Your task to perform on an android device: What's on my calendar tomorrow? Image 0: 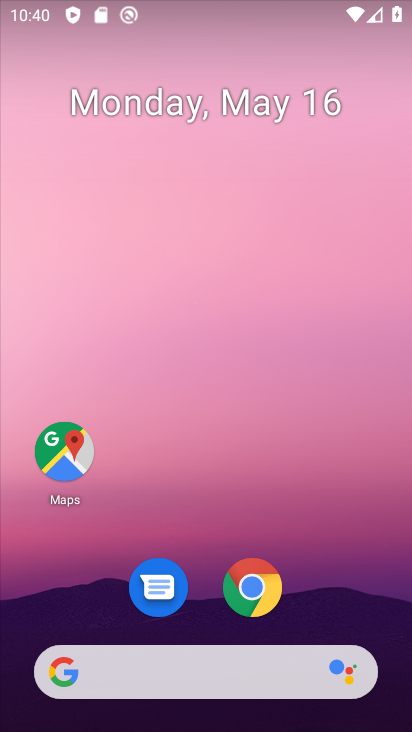
Step 0: drag from (400, 630) to (262, 33)
Your task to perform on an android device: What's on my calendar tomorrow? Image 1: 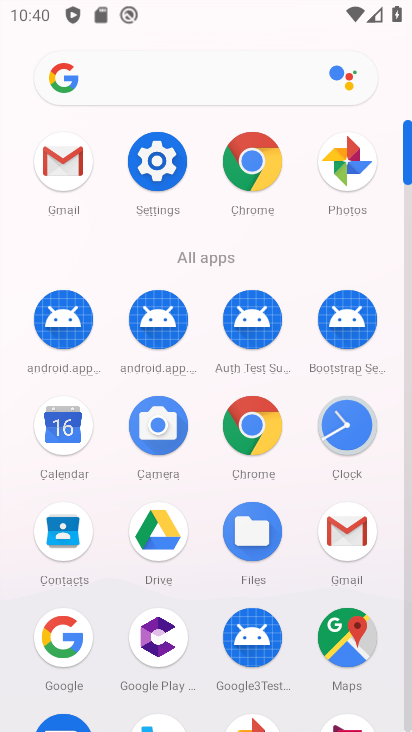
Step 1: click (70, 432)
Your task to perform on an android device: What's on my calendar tomorrow? Image 2: 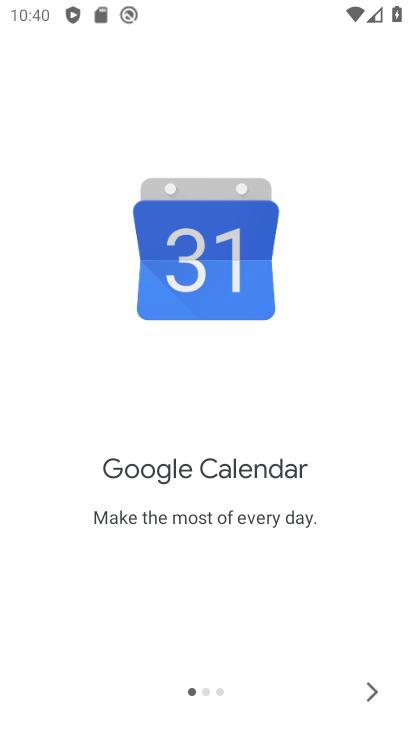
Step 2: click (368, 693)
Your task to perform on an android device: What's on my calendar tomorrow? Image 3: 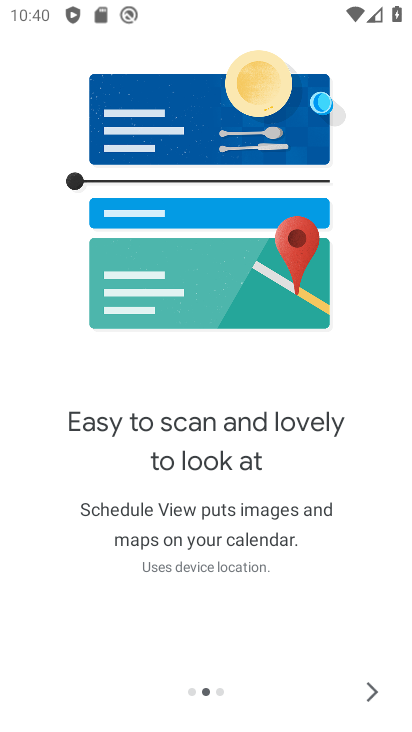
Step 3: click (368, 693)
Your task to perform on an android device: What's on my calendar tomorrow? Image 4: 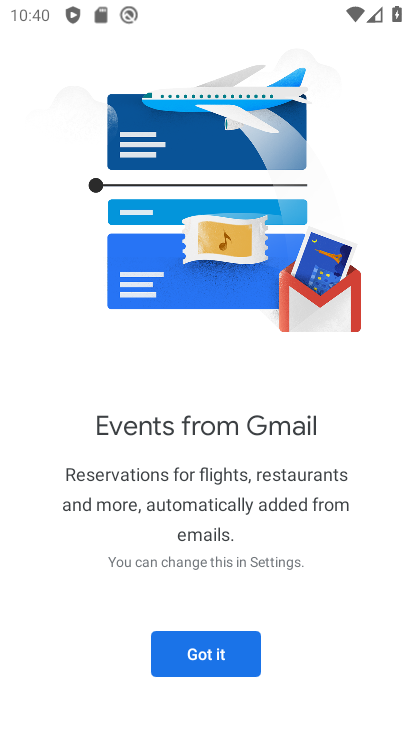
Step 4: click (186, 659)
Your task to perform on an android device: What's on my calendar tomorrow? Image 5: 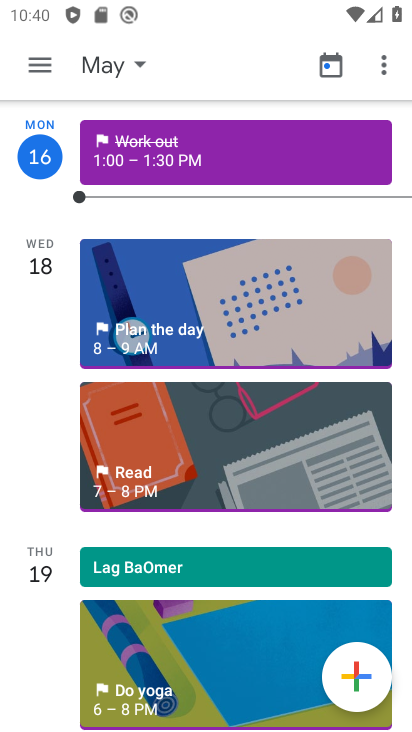
Step 5: click (93, 65)
Your task to perform on an android device: What's on my calendar tomorrow? Image 6: 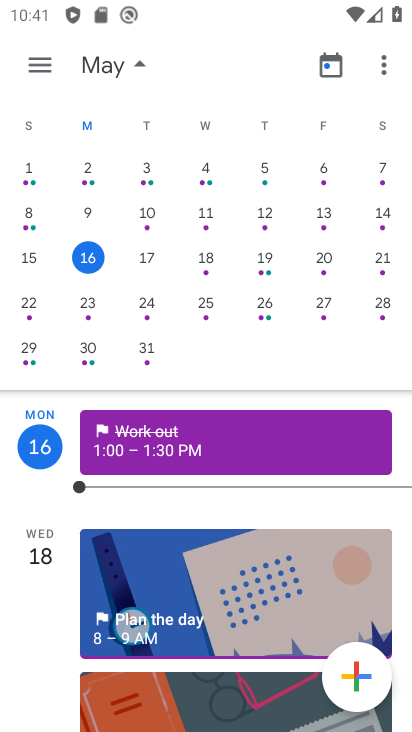
Step 6: click (218, 259)
Your task to perform on an android device: What's on my calendar tomorrow? Image 7: 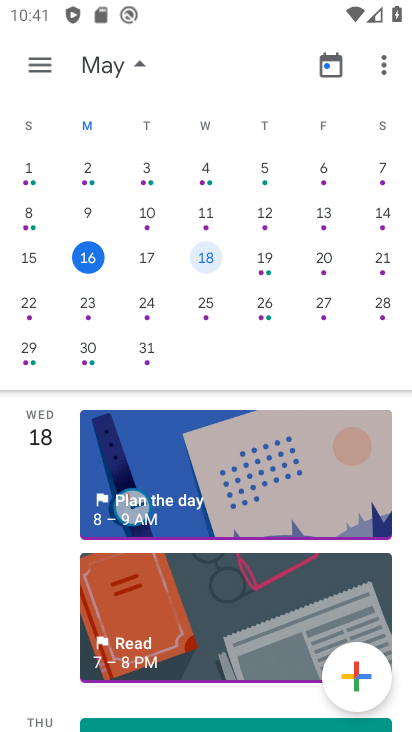
Step 7: task complete